Your task to perform on an android device: read, delete, or share a saved page in the chrome app Image 0: 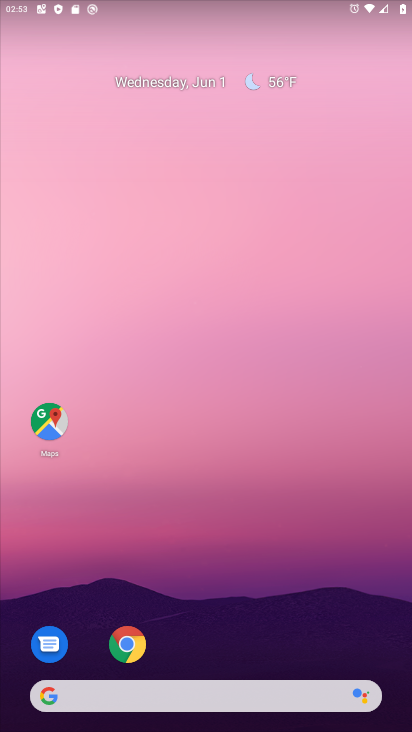
Step 0: click (137, 657)
Your task to perform on an android device: read, delete, or share a saved page in the chrome app Image 1: 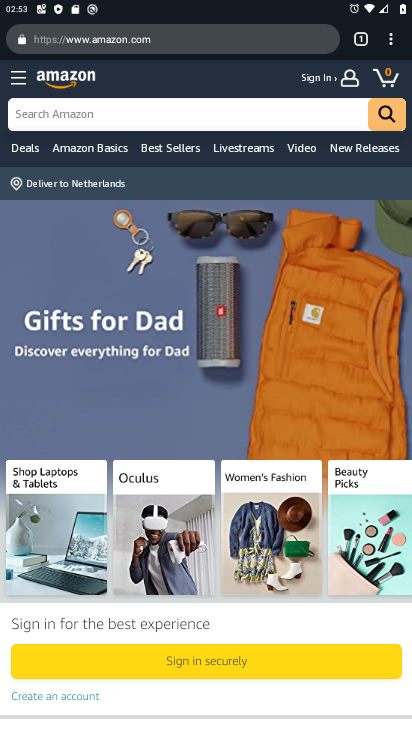
Step 1: click (131, 643)
Your task to perform on an android device: read, delete, or share a saved page in the chrome app Image 2: 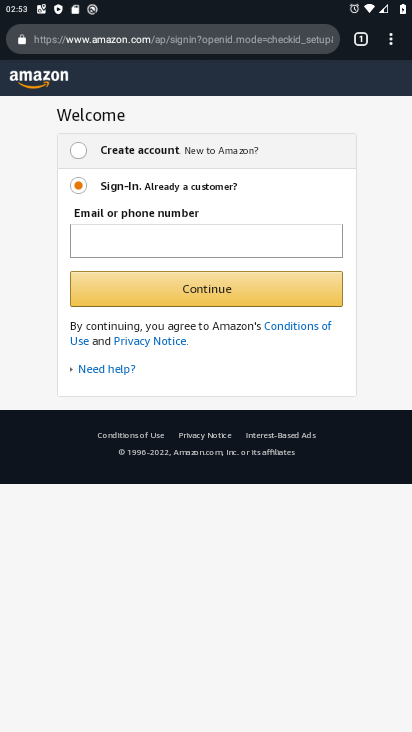
Step 2: click (386, 49)
Your task to perform on an android device: read, delete, or share a saved page in the chrome app Image 3: 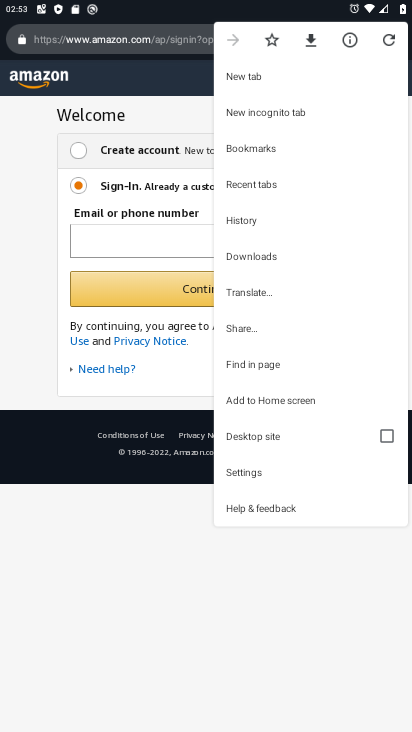
Step 3: click (253, 253)
Your task to perform on an android device: read, delete, or share a saved page in the chrome app Image 4: 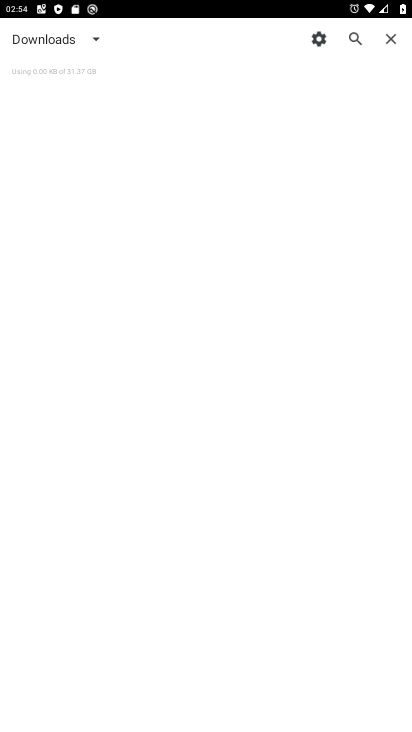
Step 4: click (104, 40)
Your task to perform on an android device: read, delete, or share a saved page in the chrome app Image 5: 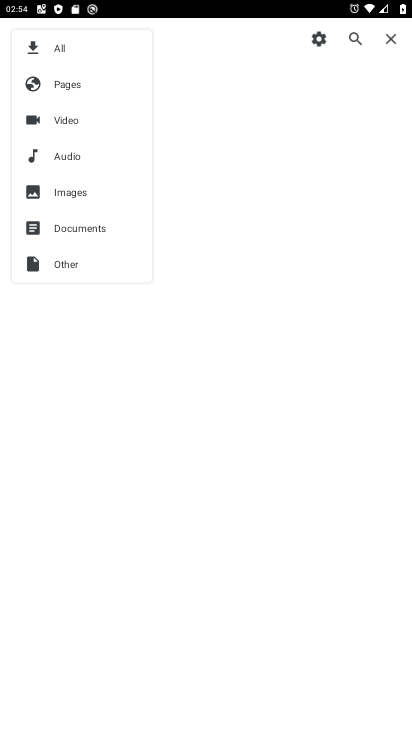
Step 5: click (64, 91)
Your task to perform on an android device: read, delete, or share a saved page in the chrome app Image 6: 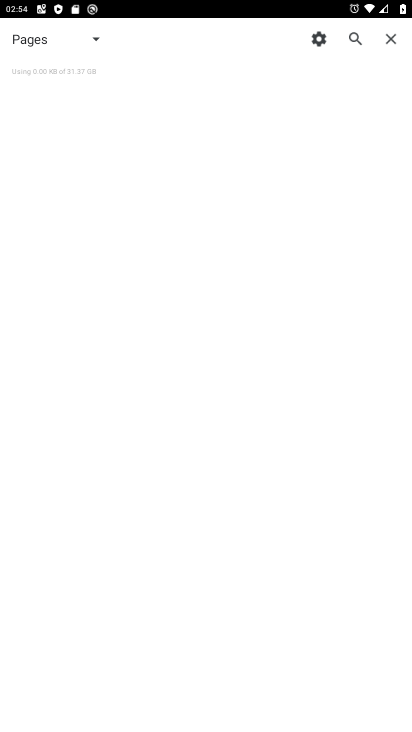
Step 6: task complete